Your task to perform on an android device: Open my contact list Image 0: 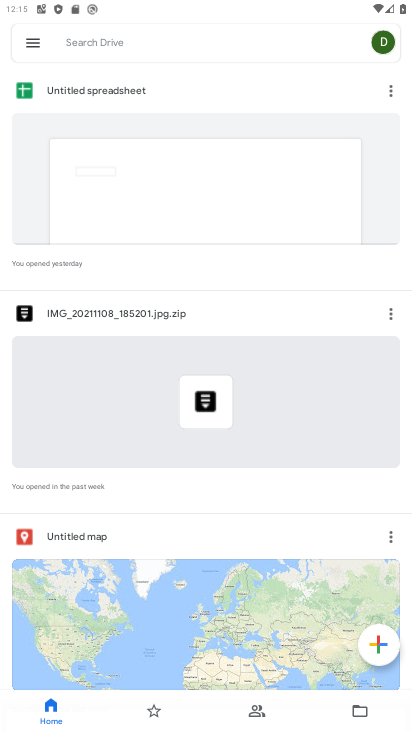
Step 0: press home button
Your task to perform on an android device: Open my contact list Image 1: 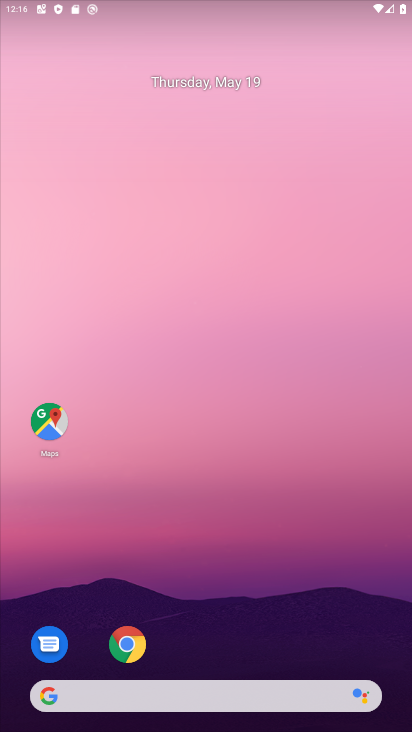
Step 1: drag from (333, 644) to (335, 252)
Your task to perform on an android device: Open my contact list Image 2: 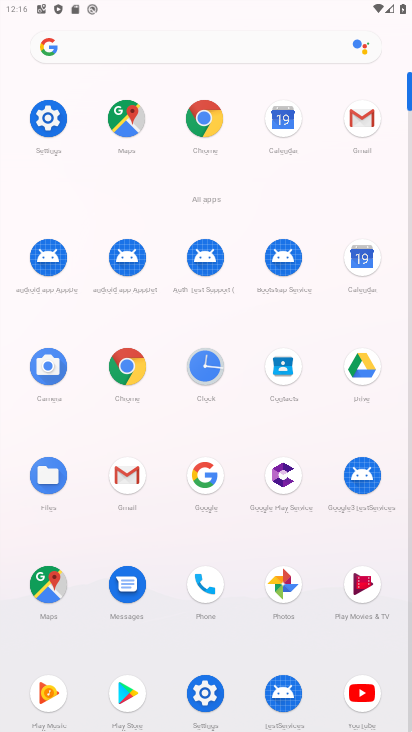
Step 2: click (291, 358)
Your task to perform on an android device: Open my contact list Image 3: 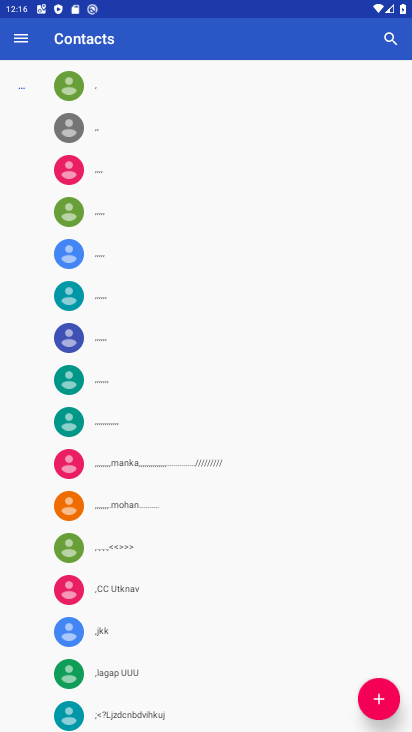
Step 3: task complete